Your task to perform on an android device: What is the recent news? Image 0: 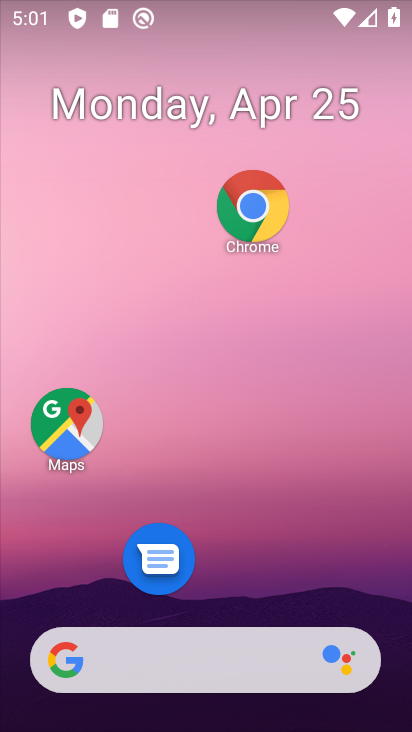
Step 0: drag from (249, 580) to (218, 37)
Your task to perform on an android device: What is the recent news? Image 1: 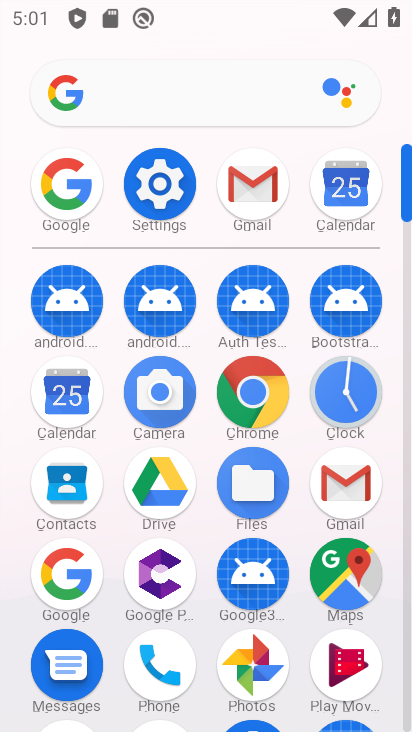
Step 1: click (59, 187)
Your task to perform on an android device: What is the recent news? Image 2: 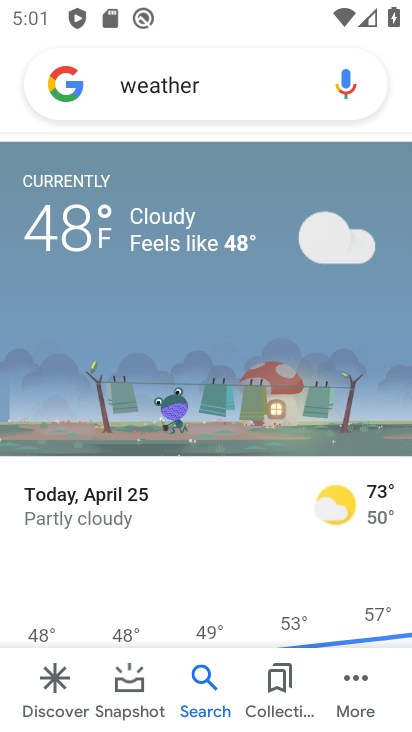
Step 2: click (217, 80)
Your task to perform on an android device: What is the recent news? Image 3: 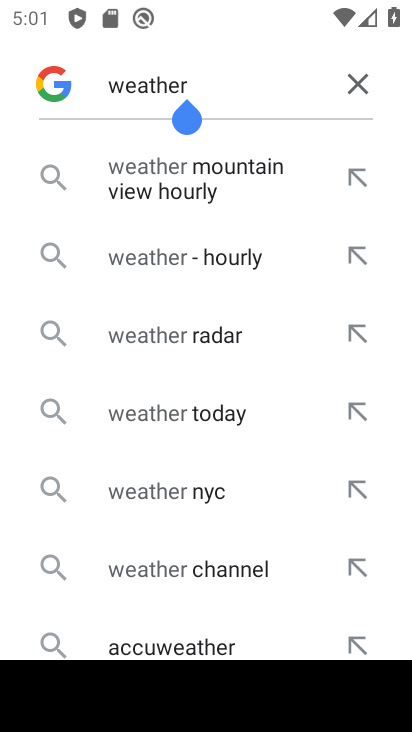
Step 3: click (354, 80)
Your task to perform on an android device: What is the recent news? Image 4: 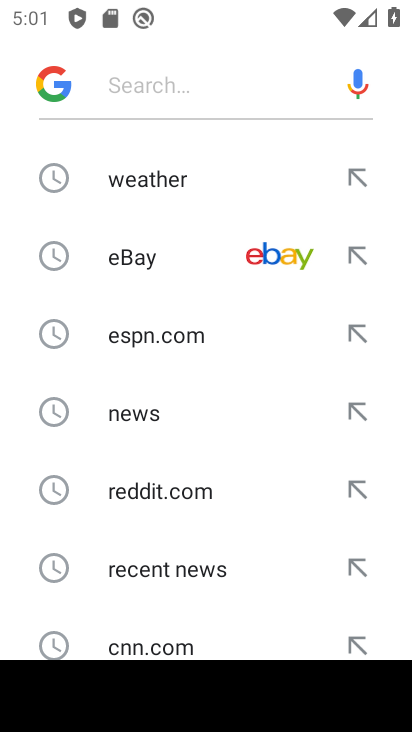
Step 4: click (155, 562)
Your task to perform on an android device: What is the recent news? Image 5: 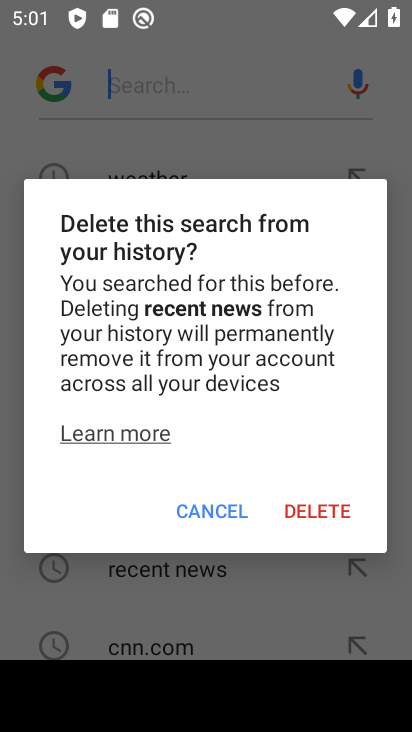
Step 5: click (223, 508)
Your task to perform on an android device: What is the recent news? Image 6: 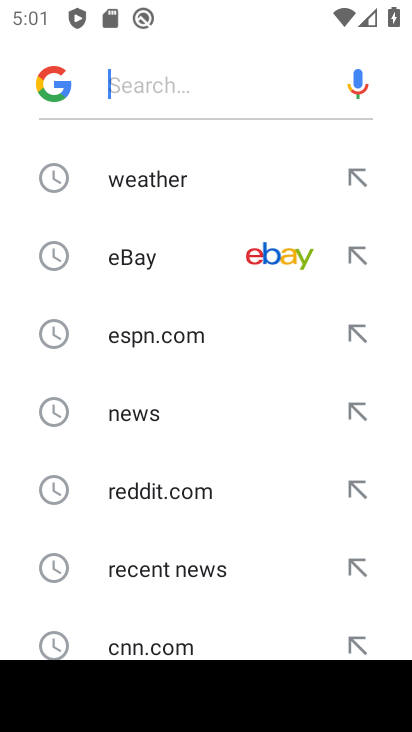
Step 6: click (138, 580)
Your task to perform on an android device: What is the recent news? Image 7: 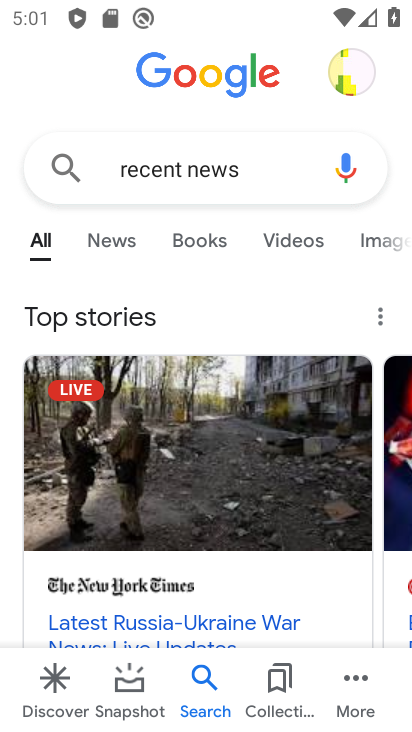
Step 7: task complete